Your task to perform on an android device: Turn off the flashlight Image 0: 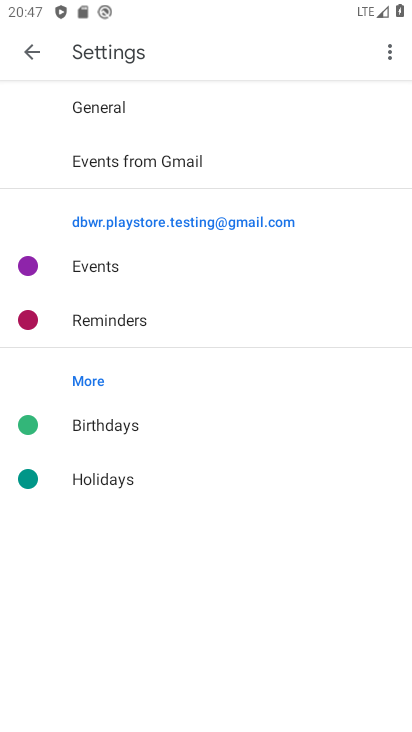
Step 0: press home button
Your task to perform on an android device: Turn off the flashlight Image 1: 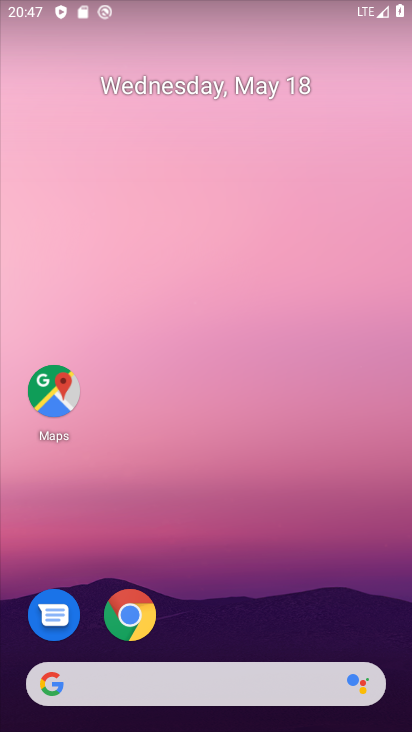
Step 1: task complete